Your task to perform on an android device: Go to sound settings Image 0: 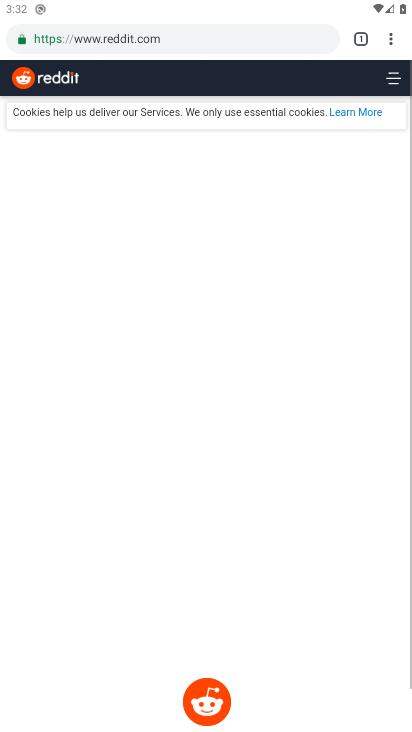
Step 0: press home button
Your task to perform on an android device: Go to sound settings Image 1: 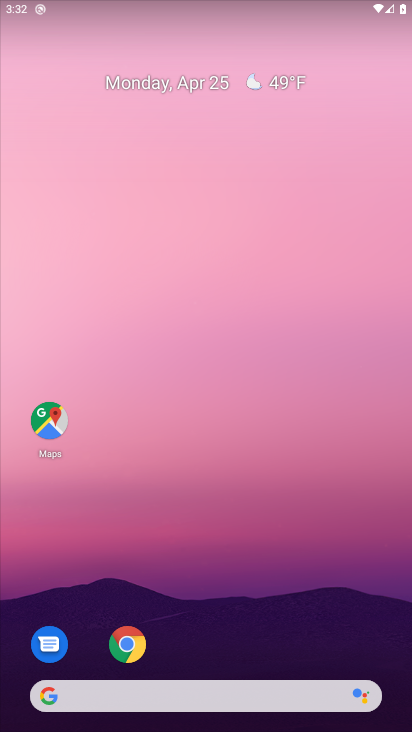
Step 1: drag from (223, 666) to (172, 78)
Your task to perform on an android device: Go to sound settings Image 2: 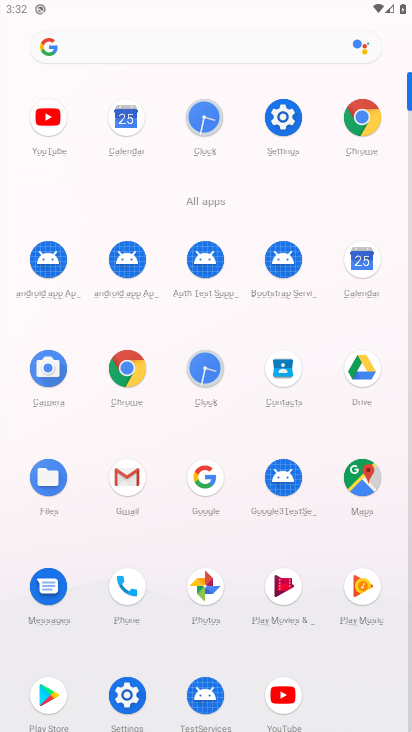
Step 2: click (287, 141)
Your task to perform on an android device: Go to sound settings Image 3: 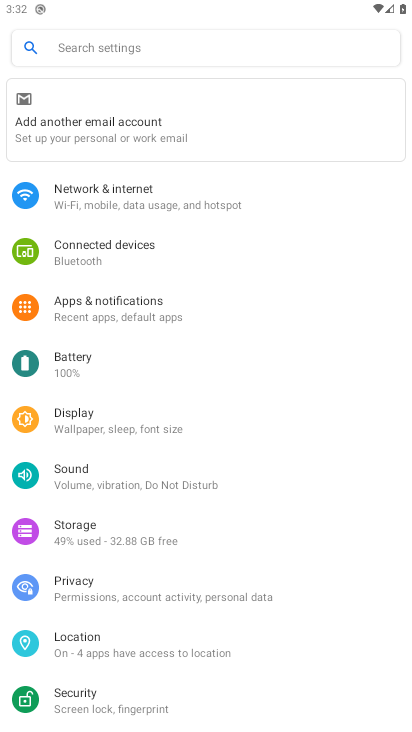
Step 3: drag from (149, 610) to (201, 264)
Your task to perform on an android device: Go to sound settings Image 4: 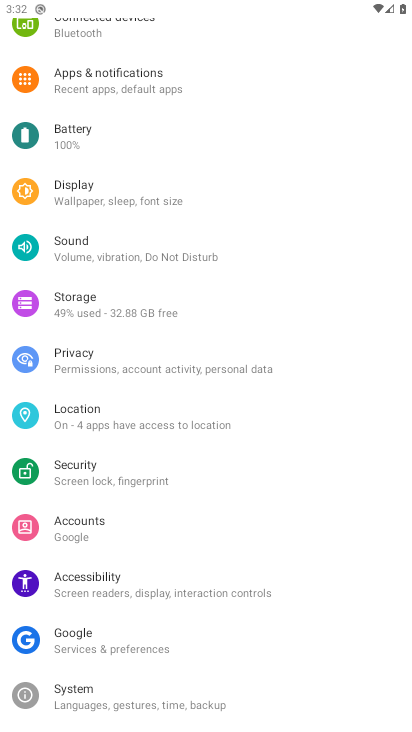
Step 4: drag from (121, 639) to (197, 218)
Your task to perform on an android device: Go to sound settings Image 5: 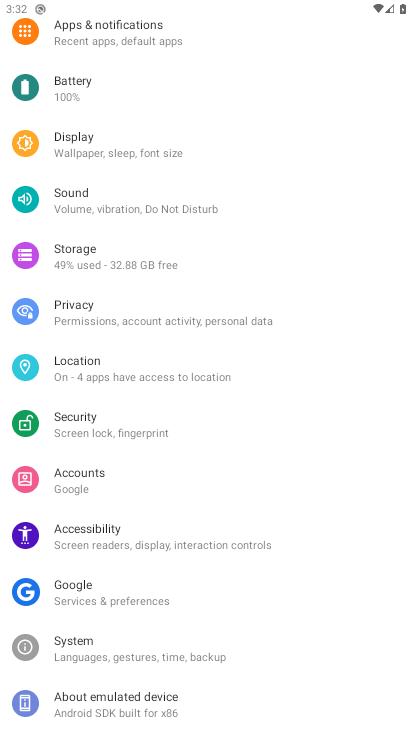
Step 5: click (205, 202)
Your task to perform on an android device: Go to sound settings Image 6: 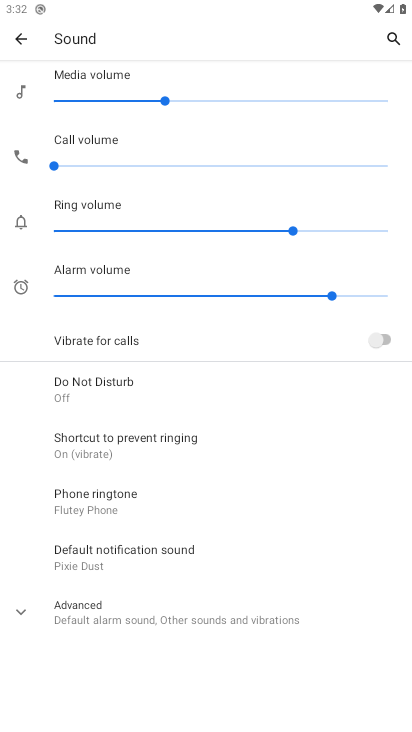
Step 6: task complete